Your task to perform on an android device: Turn on the flashlight Image 0: 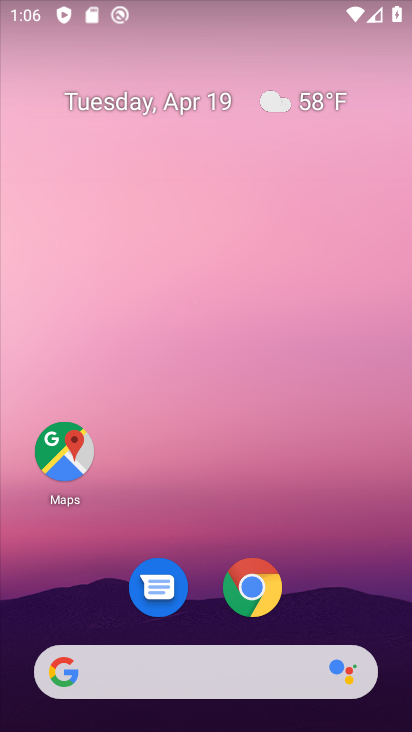
Step 0: drag from (335, 506) to (323, 55)
Your task to perform on an android device: Turn on the flashlight Image 1: 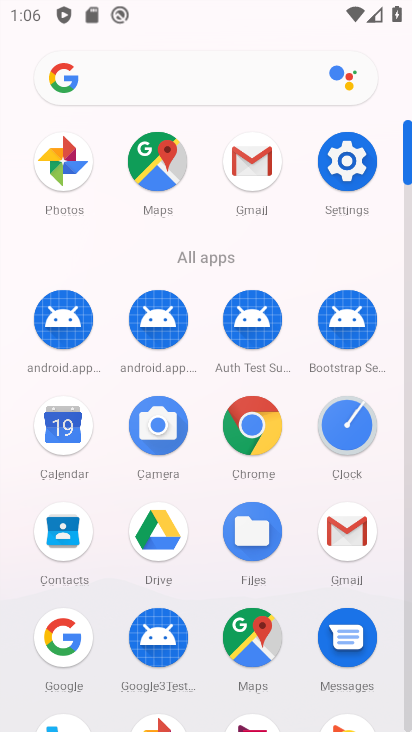
Step 1: click (354, 157)
Your task to perform on an android device: Turn on the flashlight Image 2: 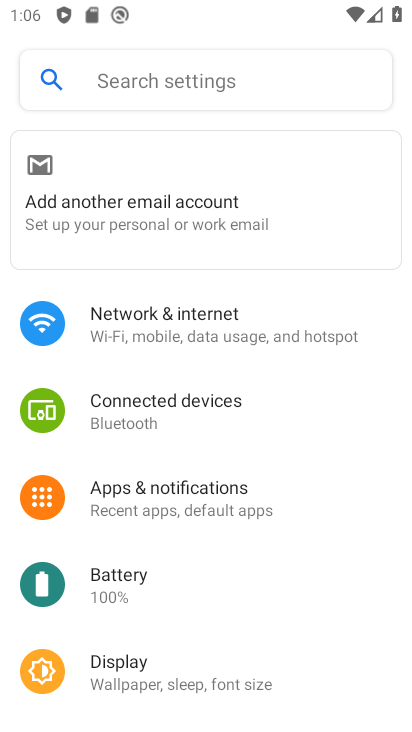
Step 2: click (177, 70)
Your task to perform on an android device: Turn on the flashlight Image 3: 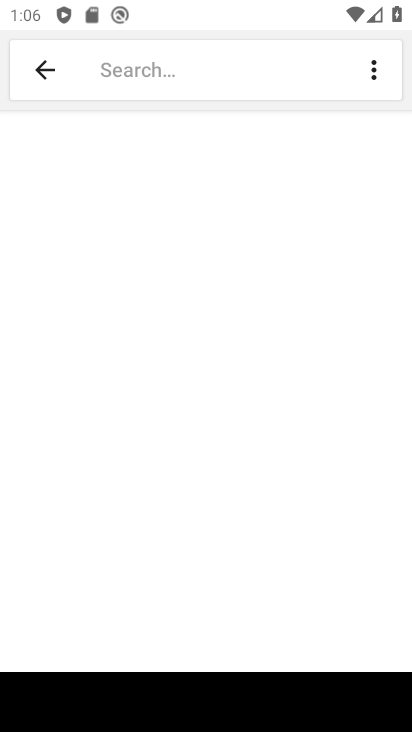
Step 3: type "flashlight"
Your task to perform on an android device: Turn on the flashlight Image 4: 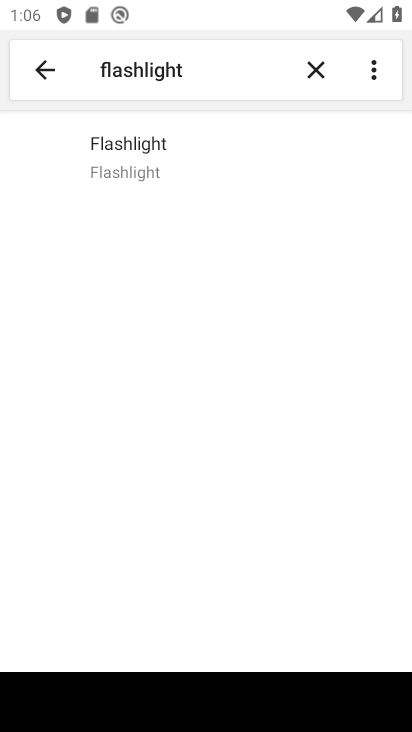
Step 4: click (147, 139)
Your task to perform on an android device: Turn on the flashlight Image 5: 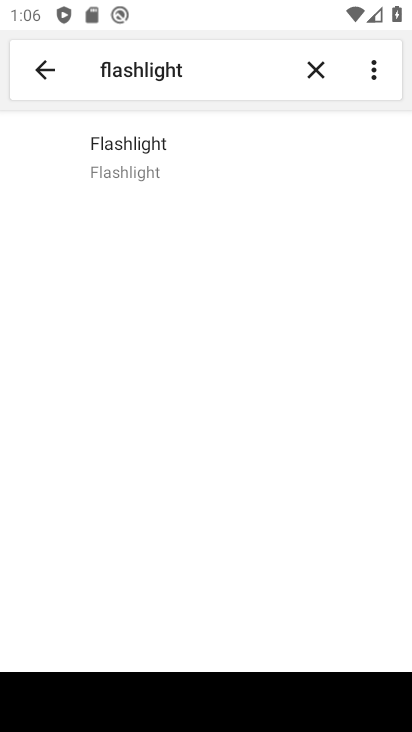
Step 5: click (138, 153)
Your task to perform on an android device: Turn on the flashlight Image 6: 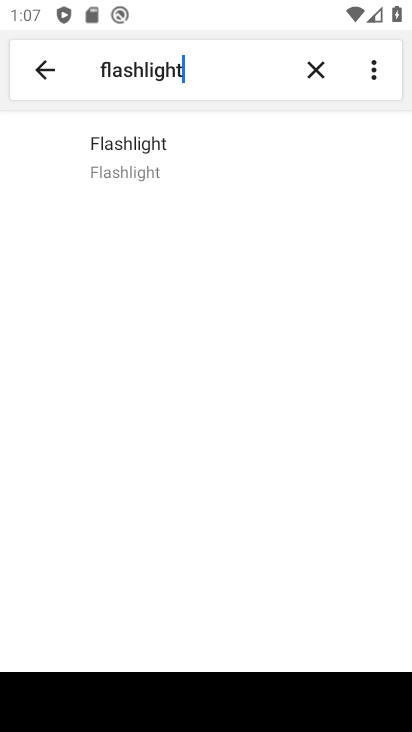
Step 6: task complete